Your task to perform on an android device: open device folders in google photos Image 0: 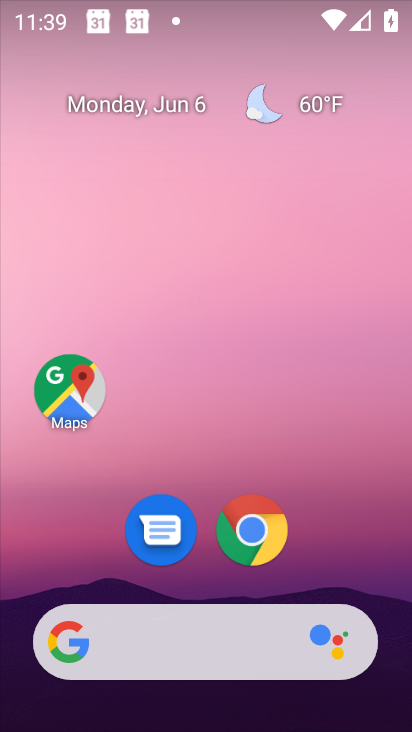
Step 0: drag from (349, 528) to (277, 0)
Your task to perform on an android device: open device folders in google photos Image 1: 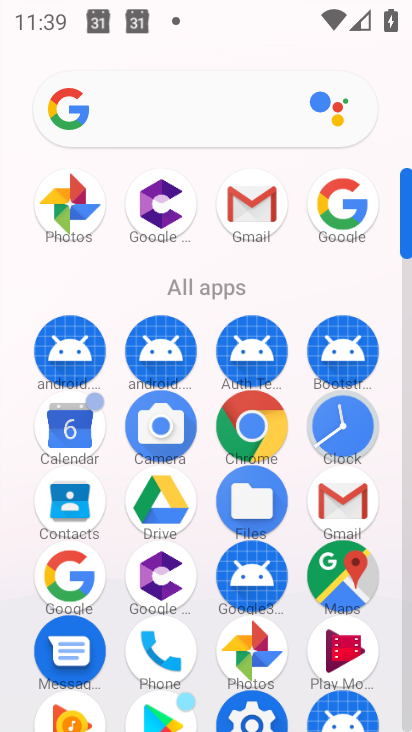
Step 1: click (262, 658)
Your task to perform on an android device: open device folders in google photos Image 2: 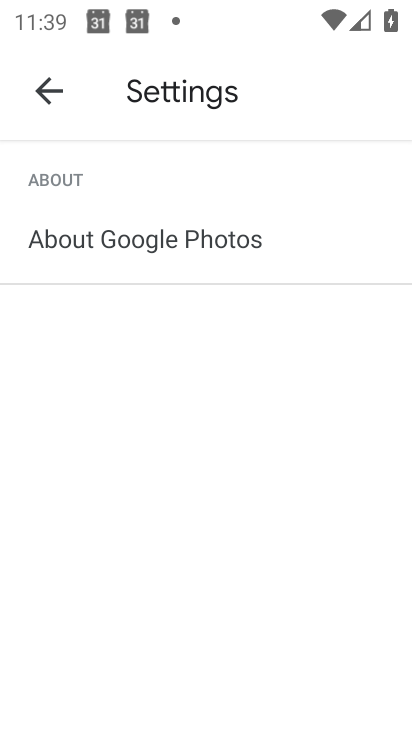
Step 2: click (48, 95)
Your task to perform on an android device: open device folders in google photos Image 3: 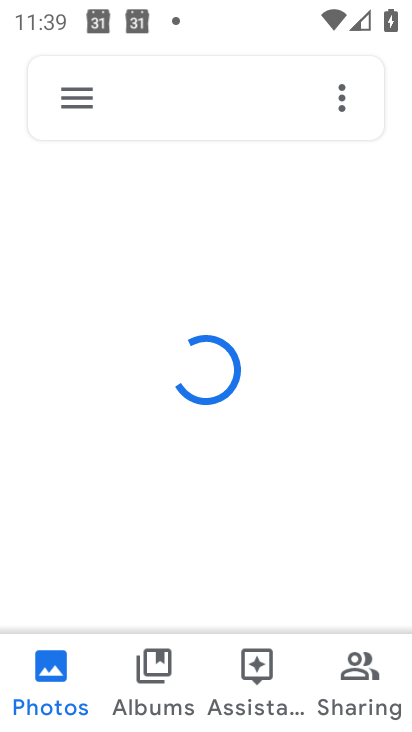
Step 3: click (75, 102)
Your task to perform on an android device: open device folders in google photos Image 4: 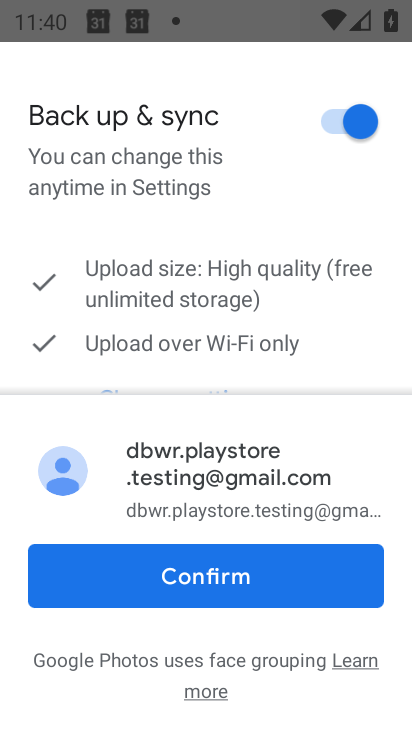
Step 4: click (191, 600)
Your task to perform on an android device: open device folders in google photos Image 5: 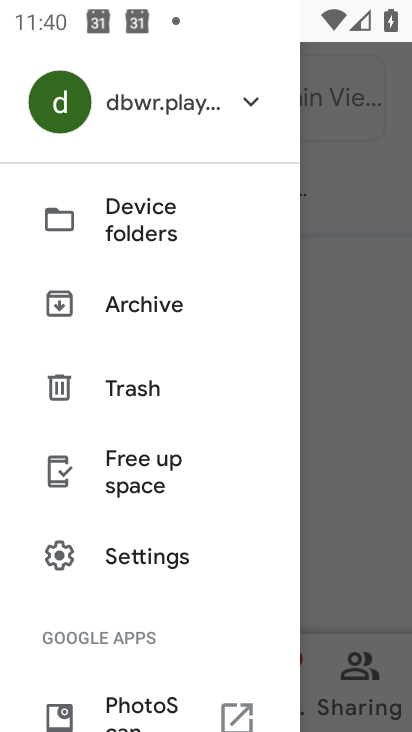
Step 5: click (176, 233)
Your task to perform on an android device: open device folders in google photos Image 6: 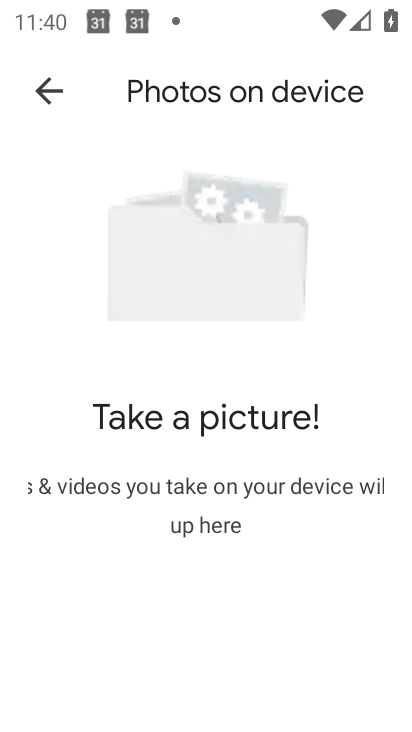
Step 6: task complete